Your task to perform on an android device: show emergency info Image 0: 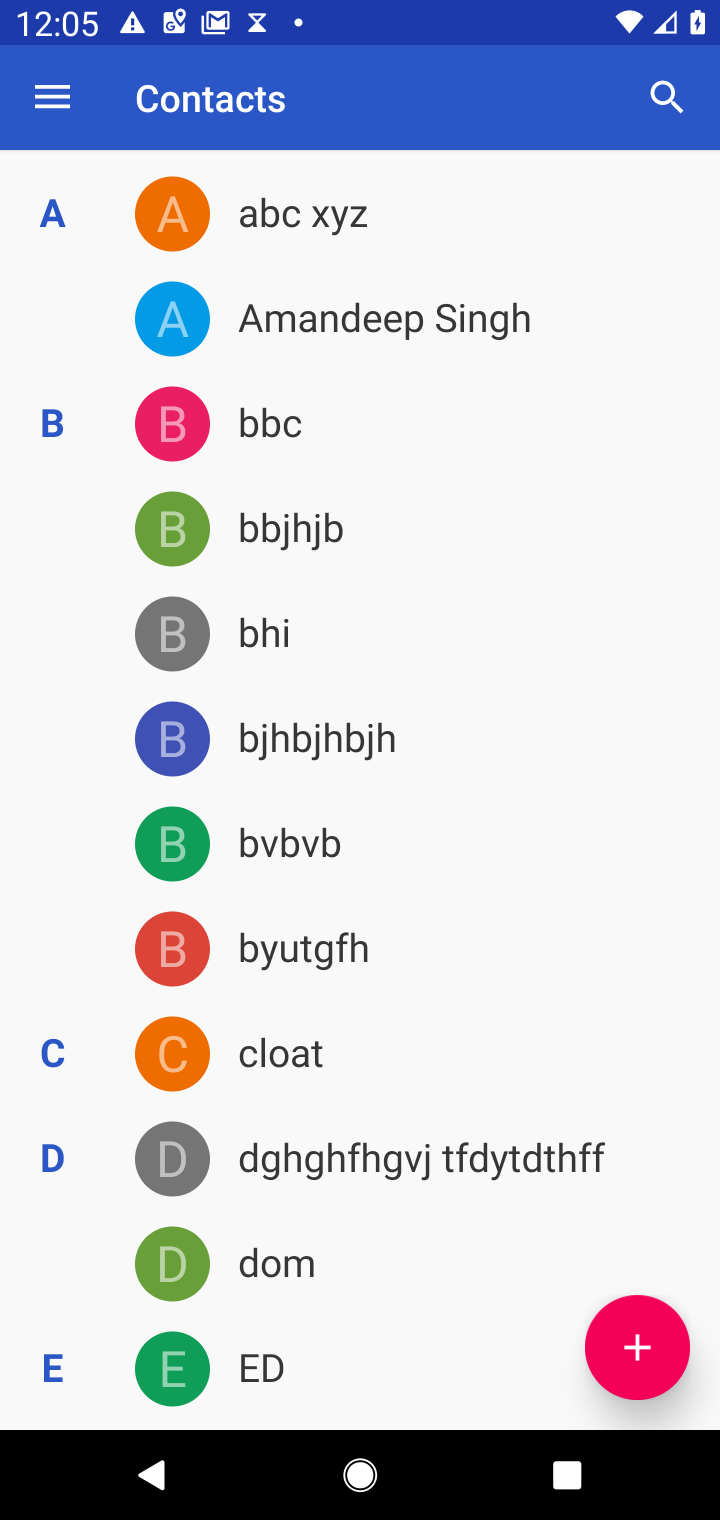
Step 0: press home button
Your task to perform on an android device: show emergency info Image 1: 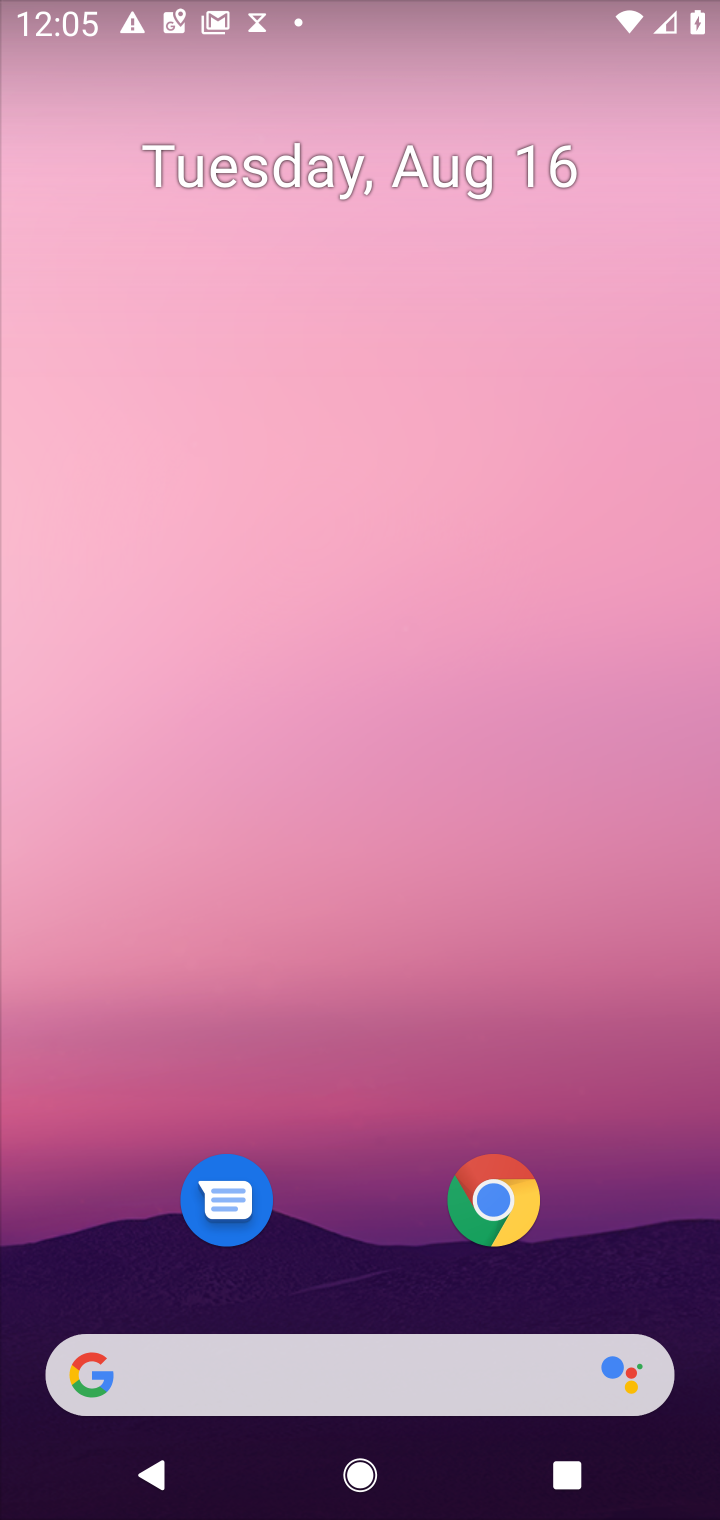
Step 1: drag from (338, 1098) to (338, 410)
Your task to perform on an android device: show emergency info Image 2: 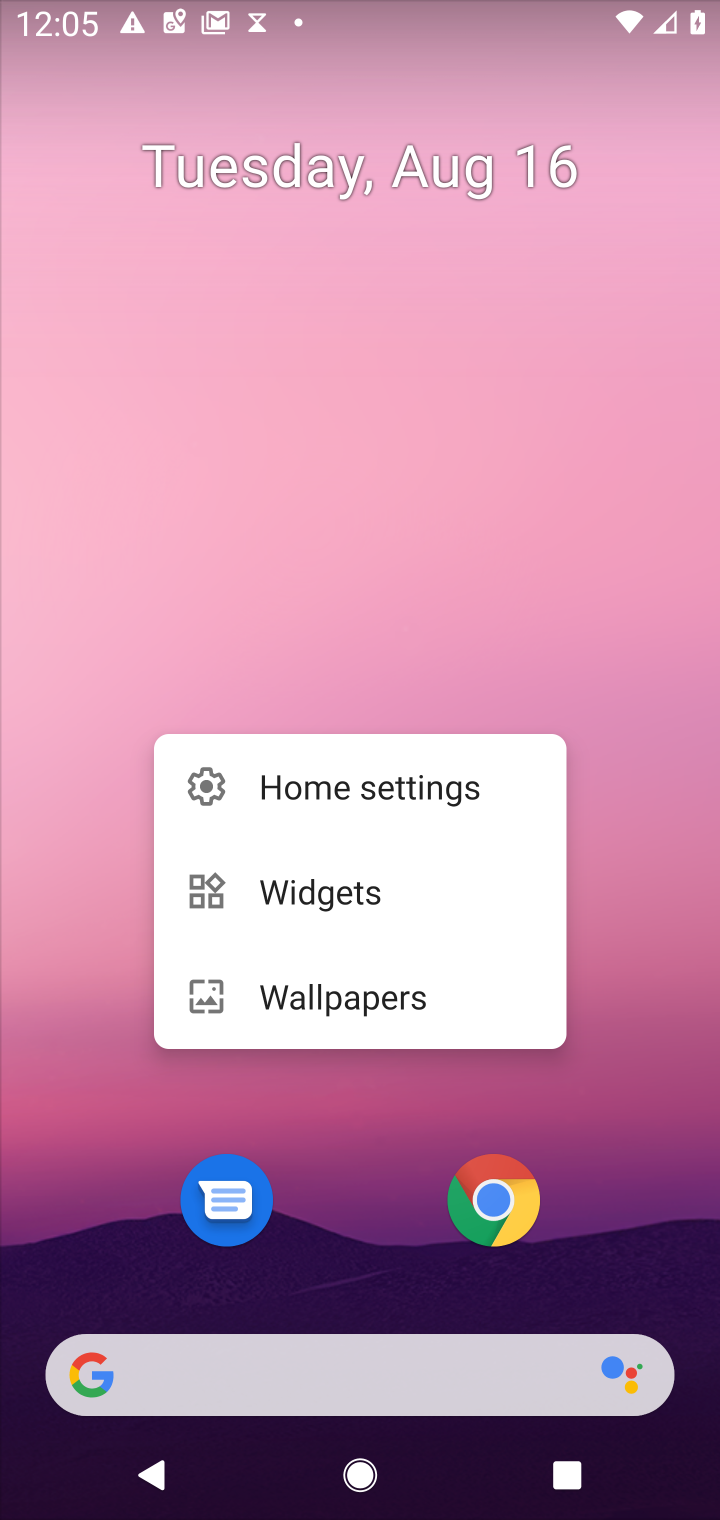
Step 2: click (330, 1237)
Your task to perform on an android device: show emergency info Image 3: 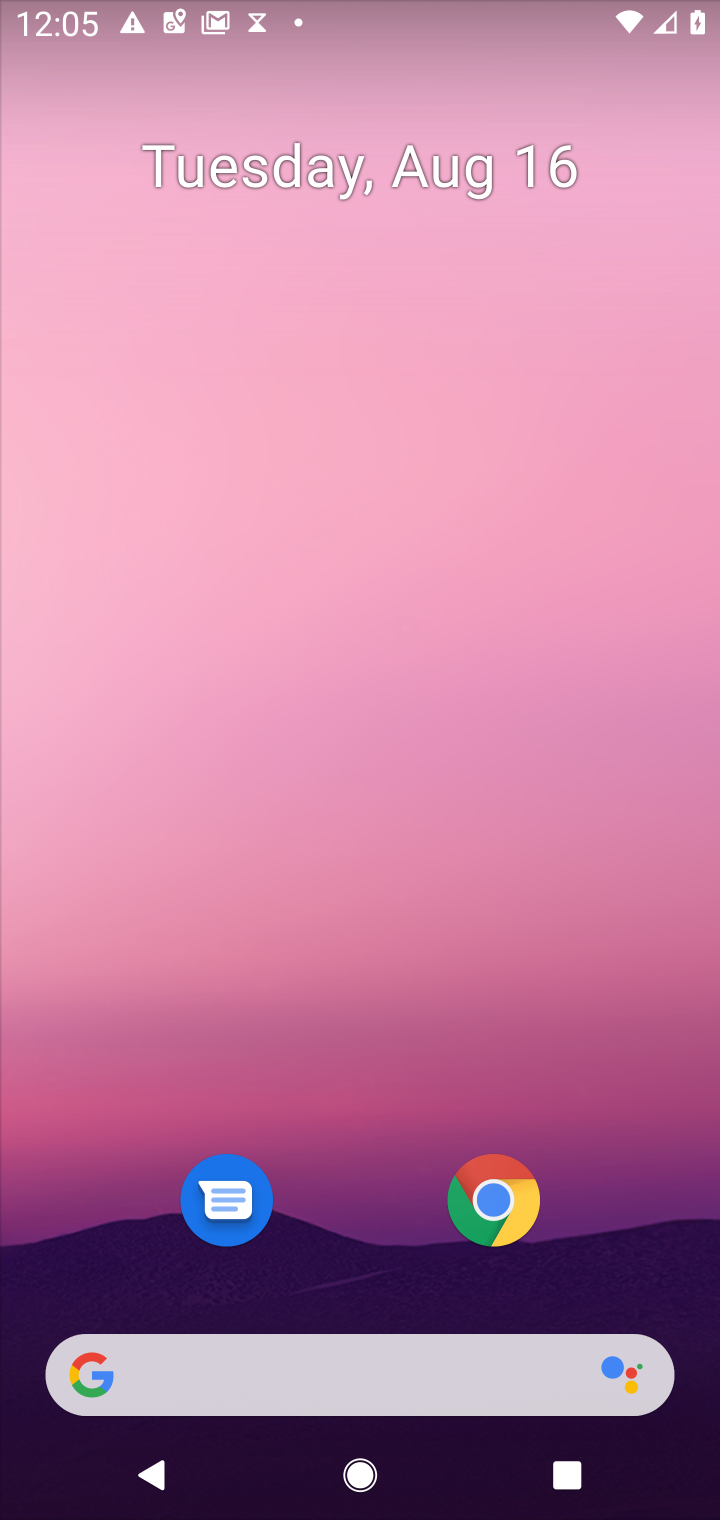
Step 3: drag from (346, 1202) to (405, 483)
Your task to perform on an android device: show emergency info Image 4: 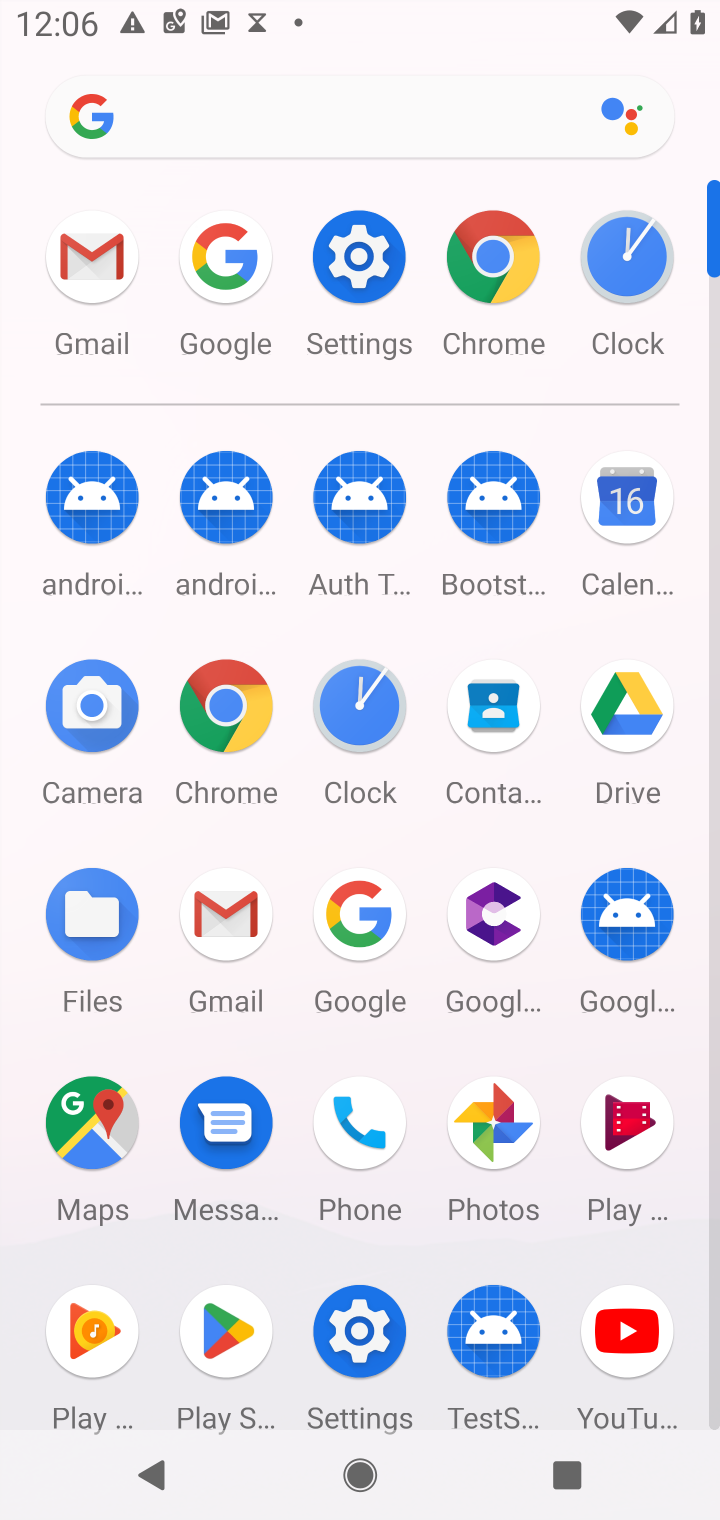
Step 4: click (382, 221)
Your task to perform on an android device: show emergency info Image 5: 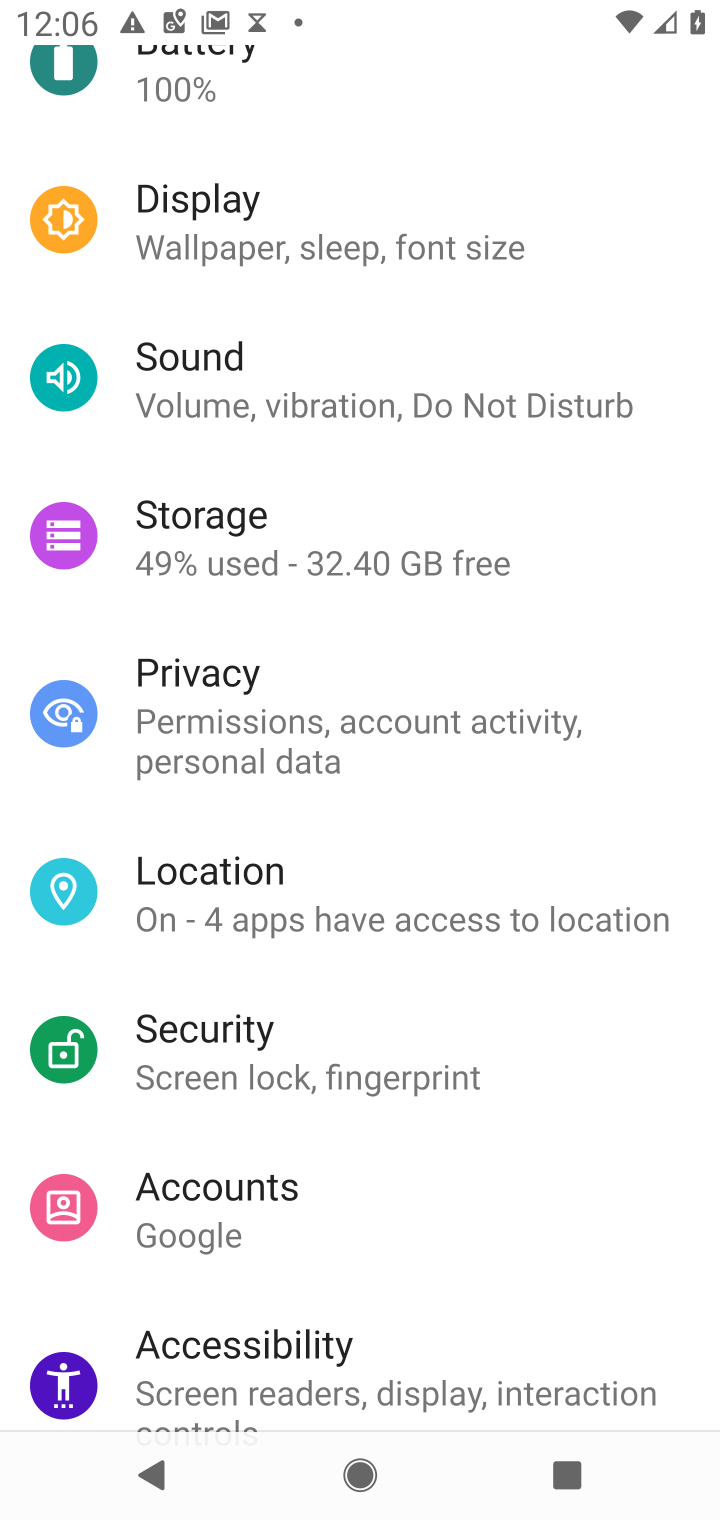
Step 5: drag from (380, 1253) to (363, 364)
Your task to perform on an android device: show emergency info Image 6: 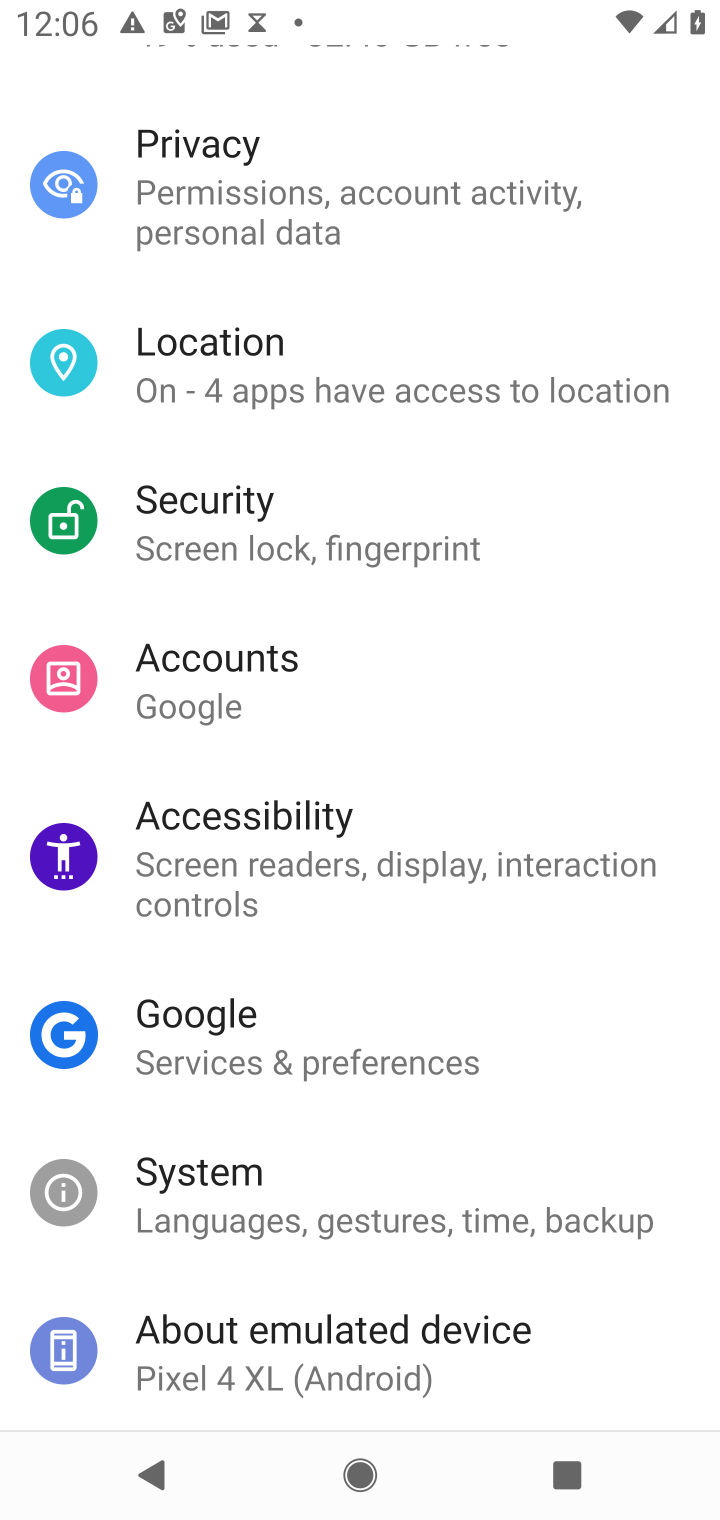
Step 6: click (276, 1382)
Your task to perform on an android device: show emergency info Image 7: 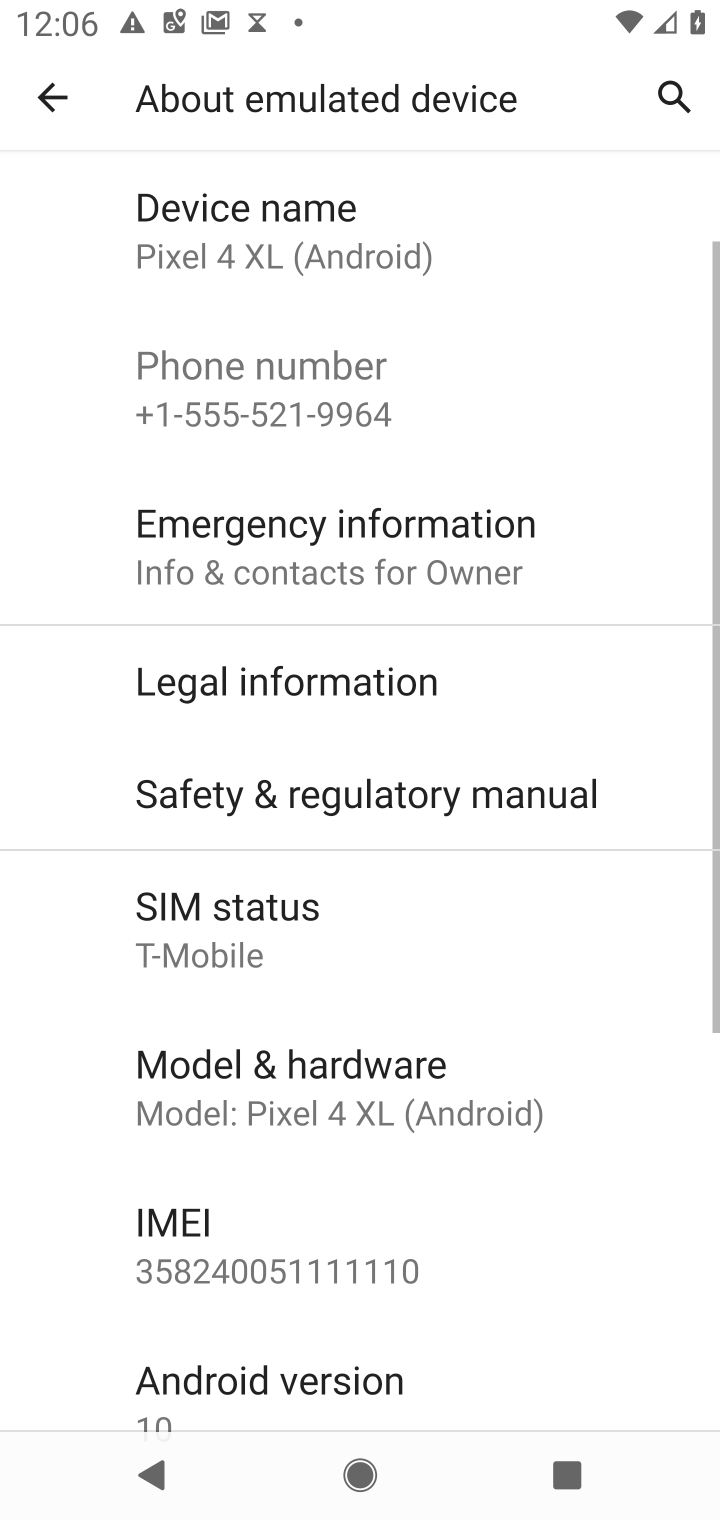
Step 7: click (264, 505)
Your task to perform on an android device: show emergency info Image 8: 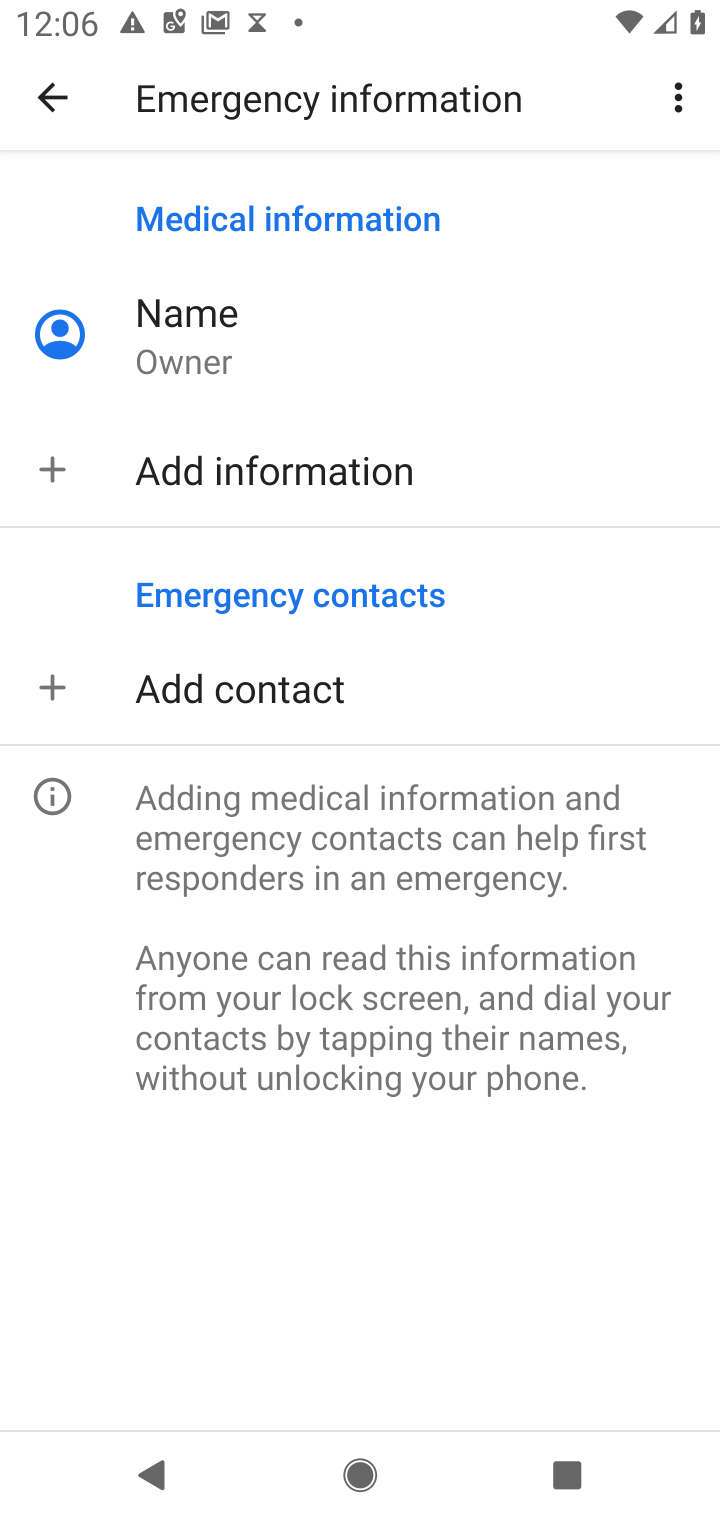
Step 8: task complete